Your task to perform on an android device: Go to battery settings Image 0: 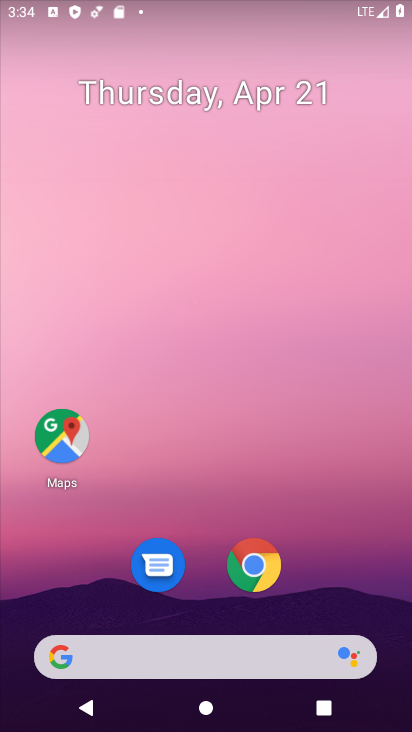
Step 0: drag from (352, 559) to (344, 33)
Your task to perform on an android device: Go to battery settings Image 1: 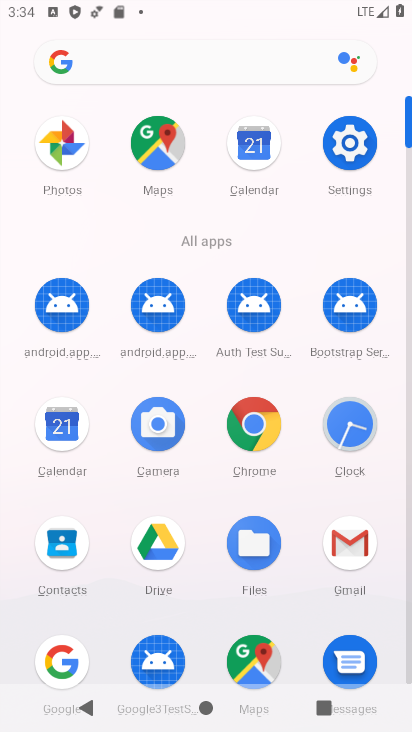
Step 1: click (353, 148)
Your task to perform on an android device: Go to battery settings Image 2: 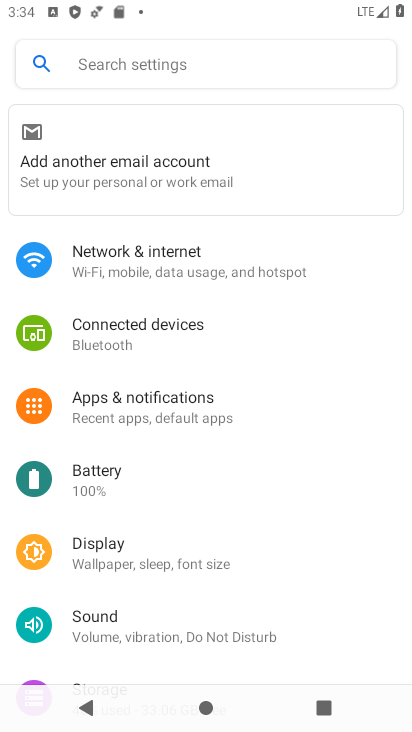
Step 2: click (188, 466)
Your task to perform on an android device: Go to battery settings Image 3: 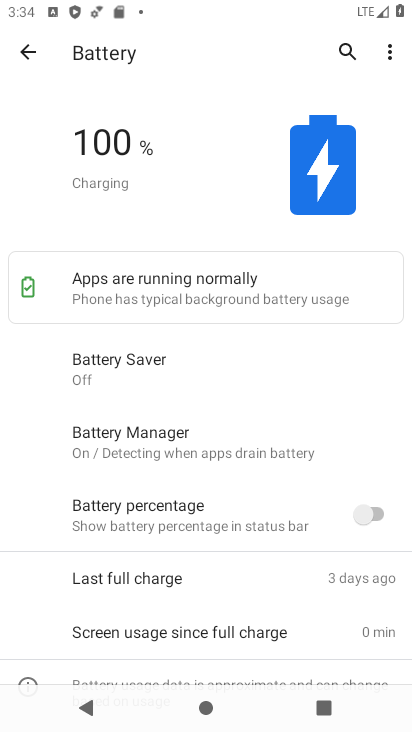
Step 3: task complete